Your task to perform on an android device: Search for pizza restaurants on Maps Image 0: 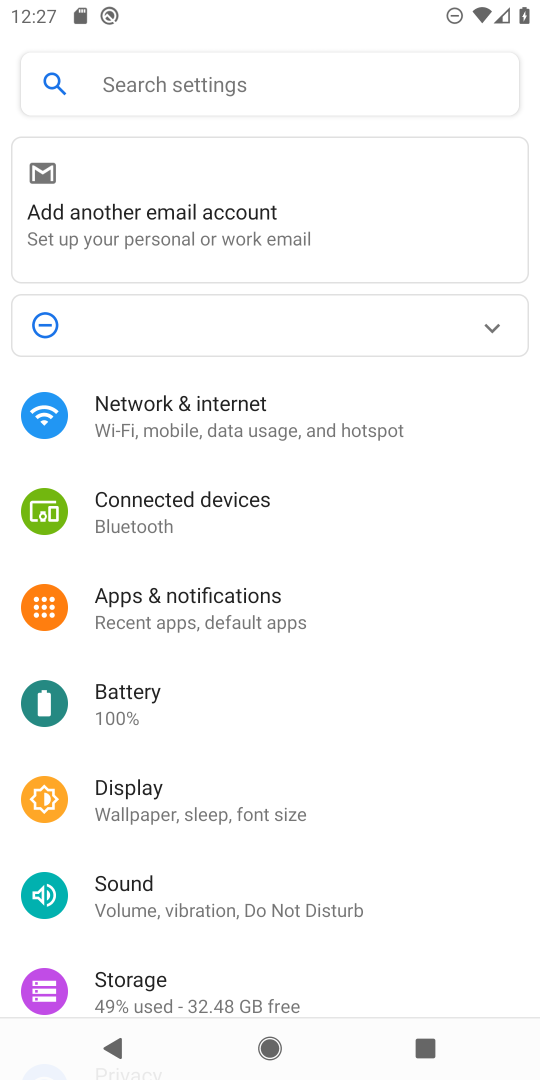
Step 0: press back button
Your task to perform on an android device: Search for pizza restaurants on Maps Image 1: 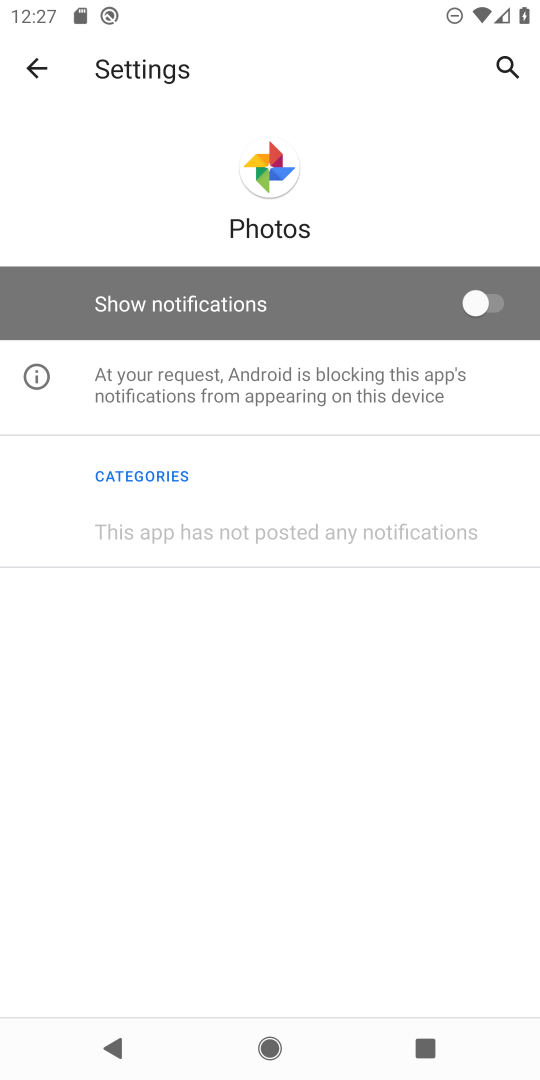
Step 1: press back button
Your task to perform on an android device: Search for pizza restaurants on Maps Image 2: 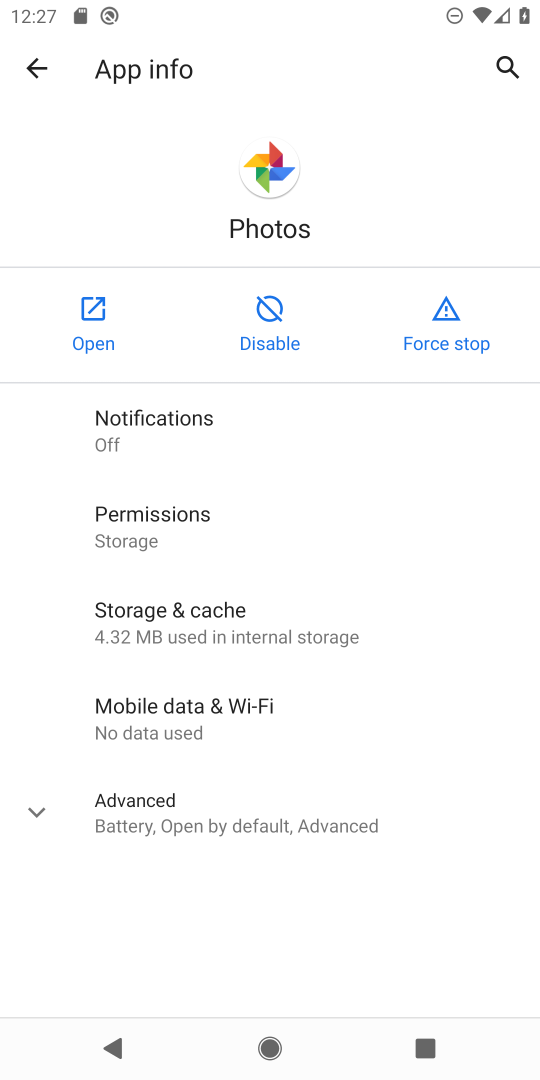
Step 2: press back button
Your task to perform on an android device: Search for pizza restaurants on Maps Image 3: 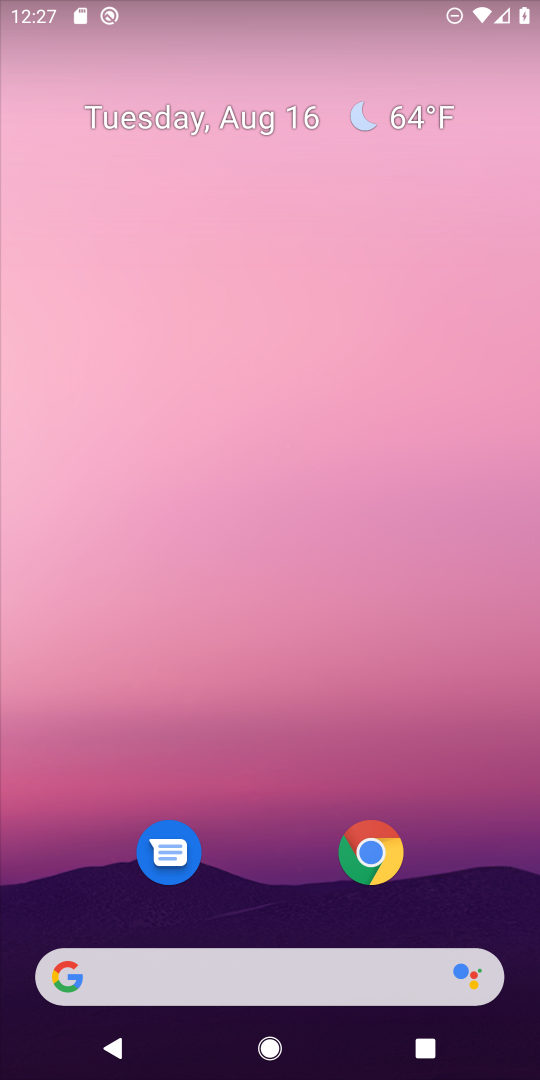
Step 3: drag from (309, 611) to (358, 84)
Your task to perform on an android device: Search for pizza restaurants on Maps Image 4: 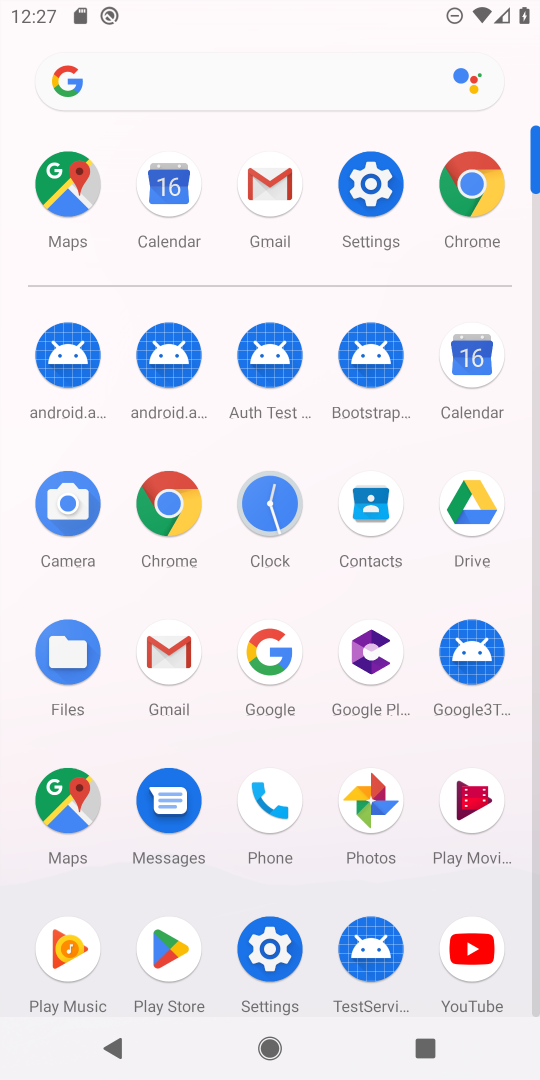
Step 4: click (63, 794)
Your task to perform on an android device: Search for pizza restaurants on Maps Image 5: 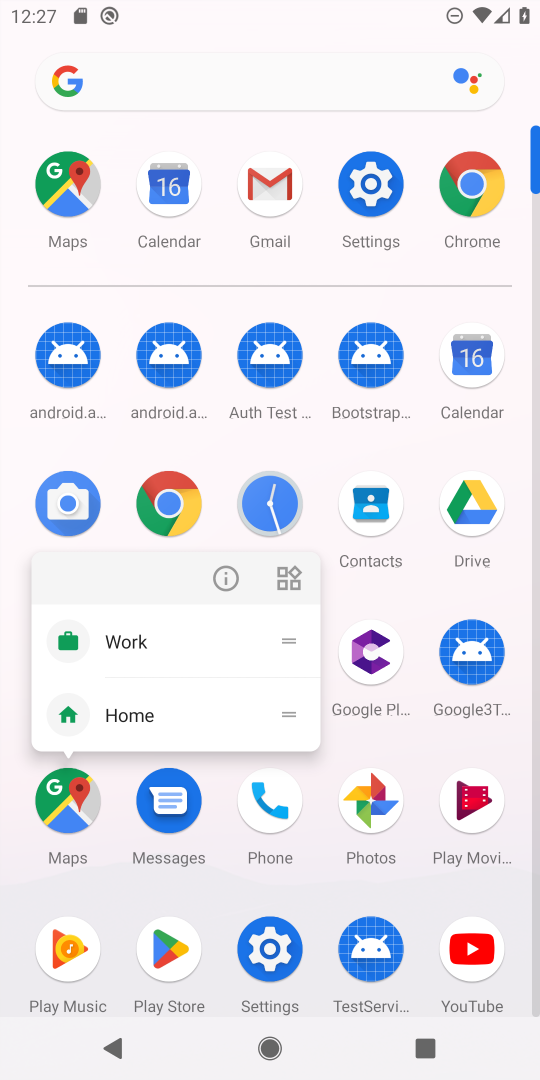
Step 5: click (73, 804)
Your task to perform on an android device: Search for pizza restaurants on Maps Image 6: 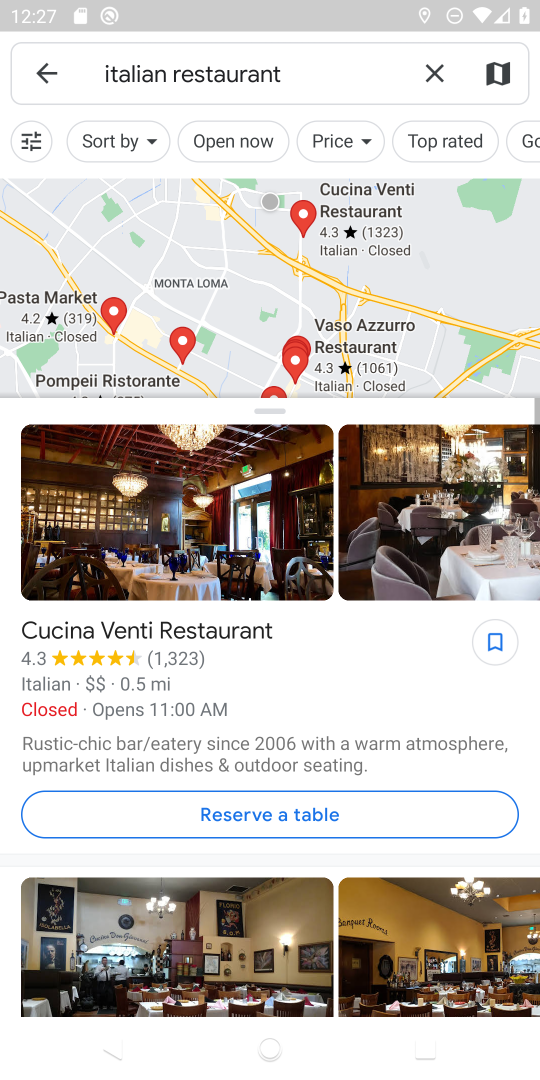
Step 6: click (426, 62)
Your task to perform on an android device: Search for pizza restaurants on Maps Image 7: 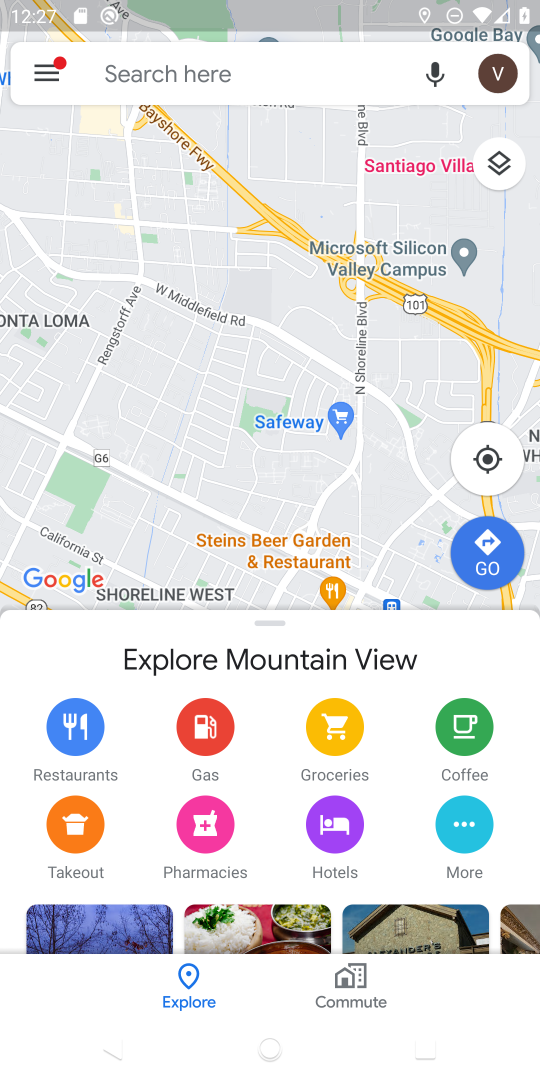
Step 7: click (128, 62)
Your task to perform on an android device: Search for pizza restaurants on Maps Image 8: 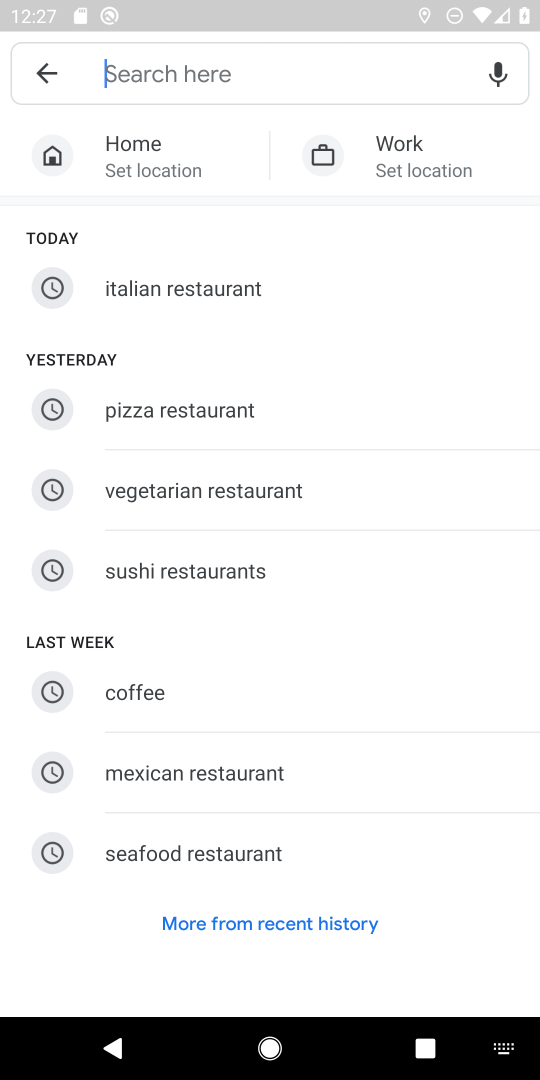
Step 8: click (198, 413)
Your task to perform on an android device: Search for pizza restaurants on Maps Image 9: 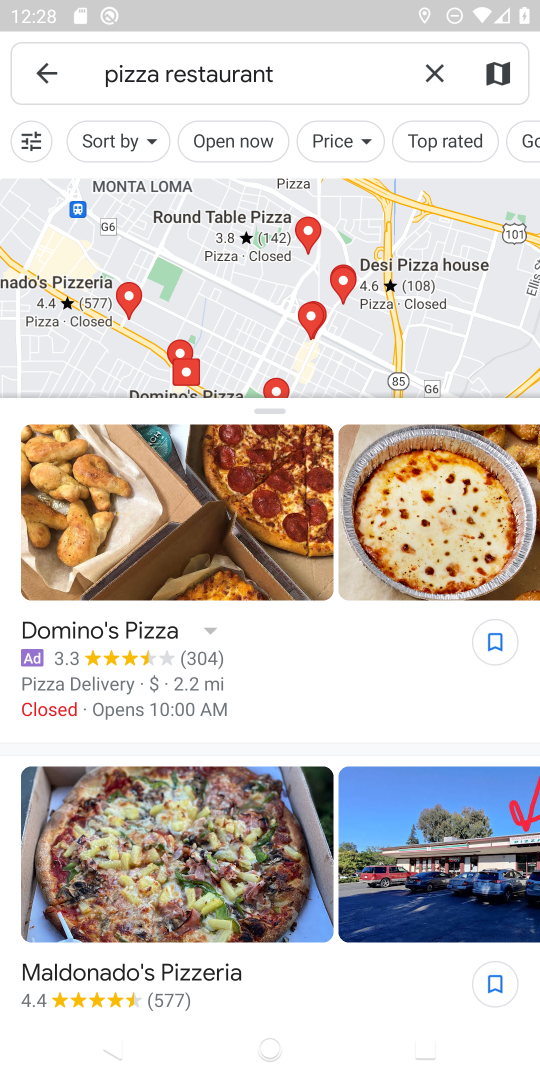
Step 9: task complete